Your task to perform on an android device: Find coffee shops on Maps Image 0: 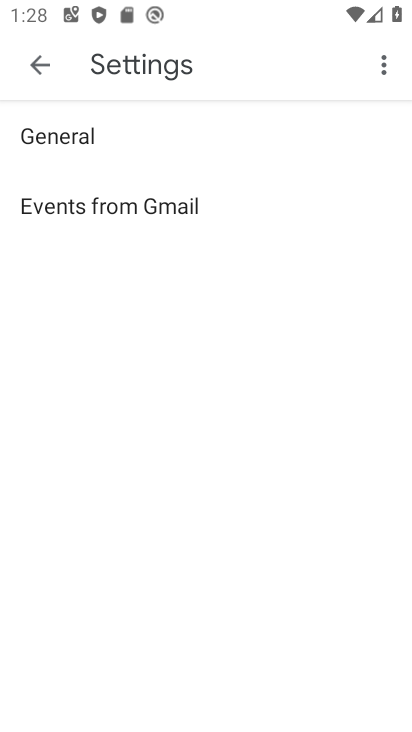
Step 0: press home button
Your task to perform on an android device: Find coffee shops on Maps Image 1: 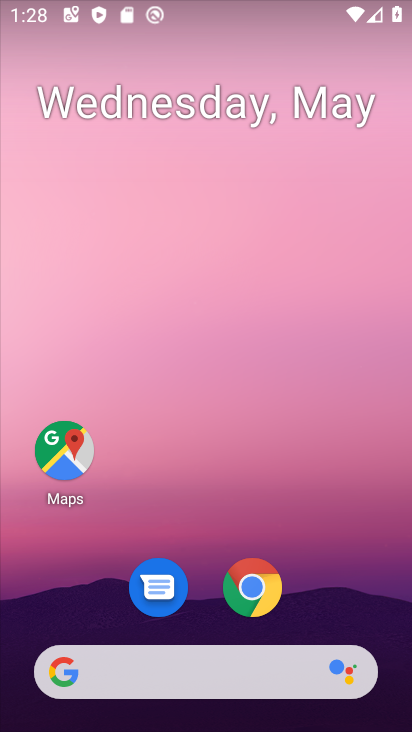
Step 1: click (50, 455)
Your task to perform on an android device: Find coffee shops on Maps Image 2: 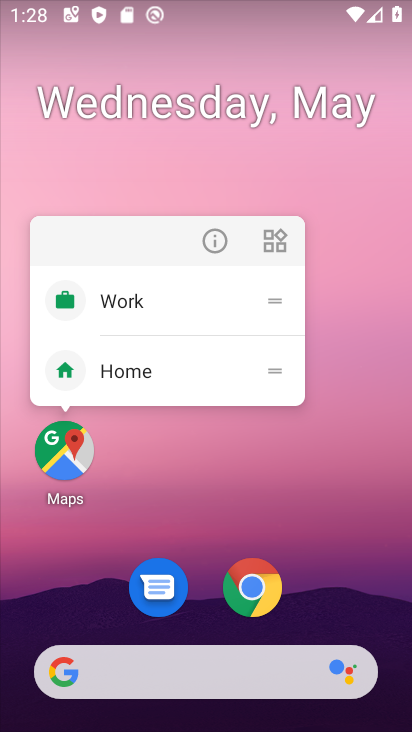
Step 2: click (88, 453)
Your task to perform on an android device: Find coffee shops on Maps Image 3: 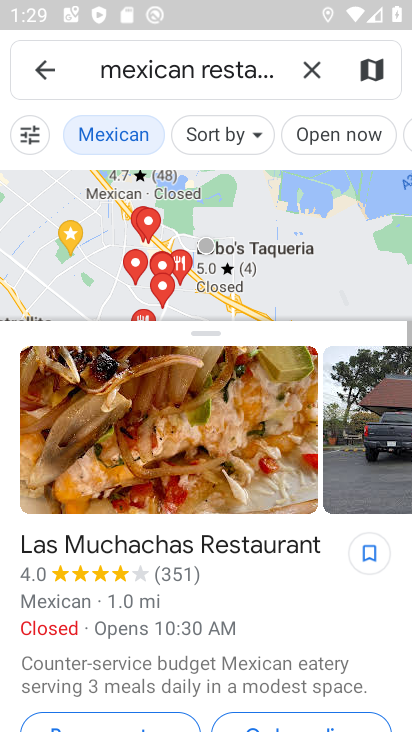
Step 3: click (304, 58)
Your task to perform on an android device: Find coffee shops on Maps Image 4: 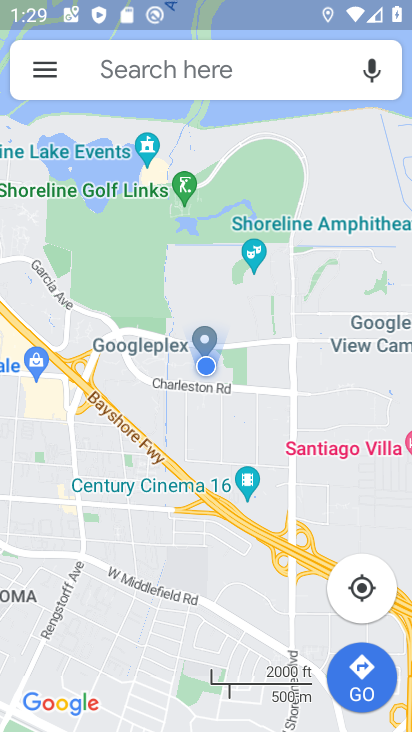
Step 4: click (211, 68)
Your task to perform on an android device: Find coffee shops on Maps Image 5: 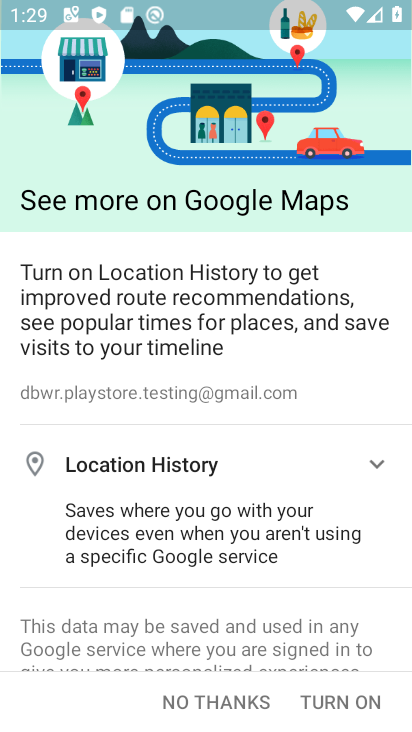
Step 5: type "c"
Your task to perform on an android device: Find coffee shops on Maps Image 6: 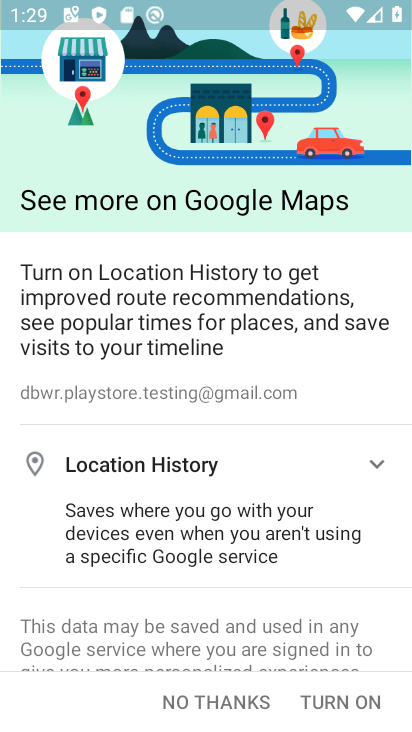
Step 6: click (232, 703)
Your task to perform on an android device: Find coffee shops on Maps Image 7: 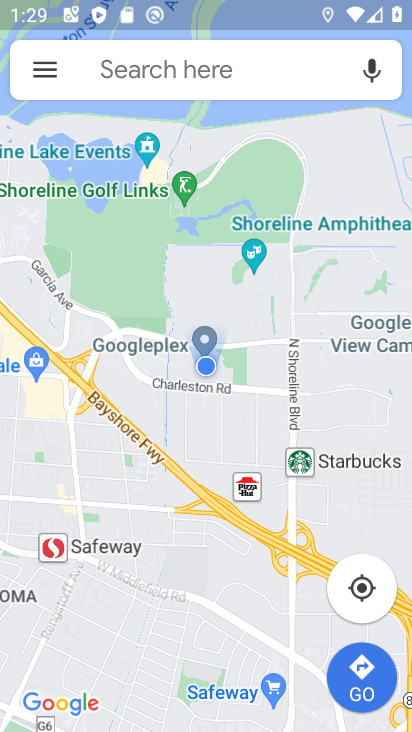
Step 7: click (285, 70)
Your task to perform on an android device: Find coffee shops on Maps Image 8: 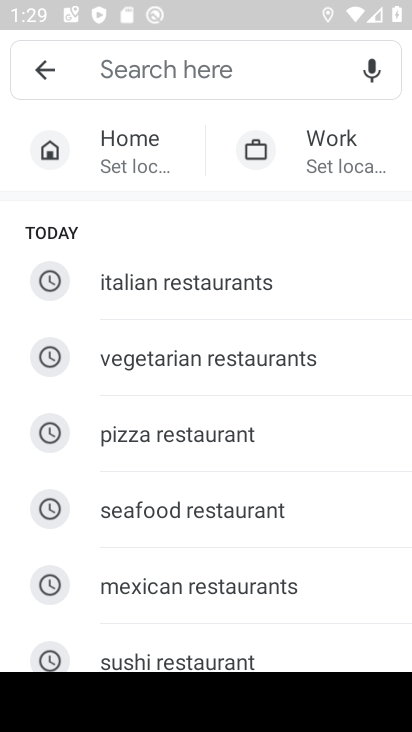
Step 8: type "coffee shops"
Your task to perform on an android device: Find coffee shops on Maps Image 9: 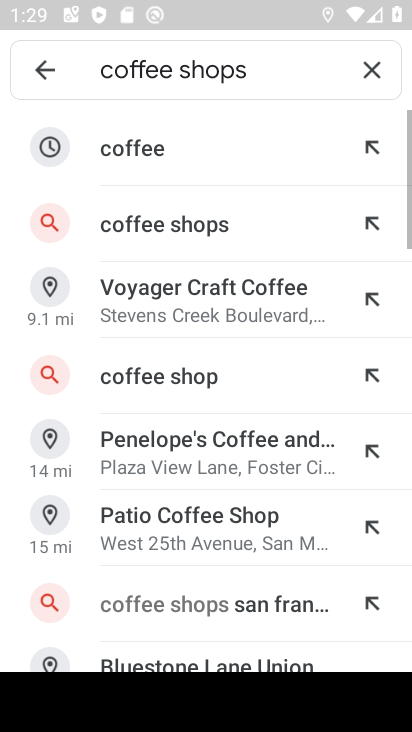
Step 9: click (171, 226)
Your task to perform on an android device: Find coffee shops on Maps Image 10: 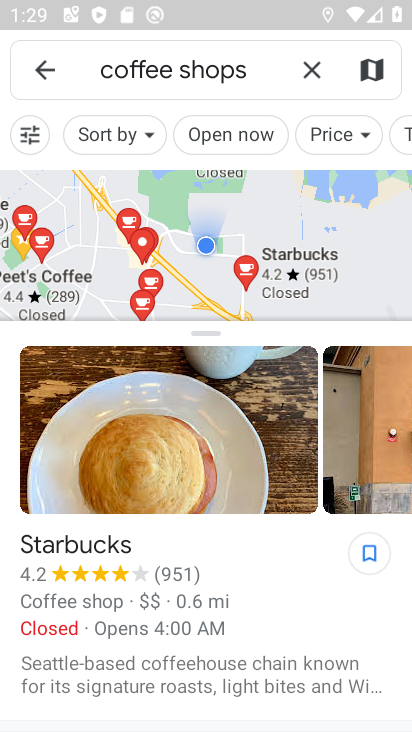
Step 10: task complete